Your task to perform on an android device: What's the weather going to be this weekend? Image 0: 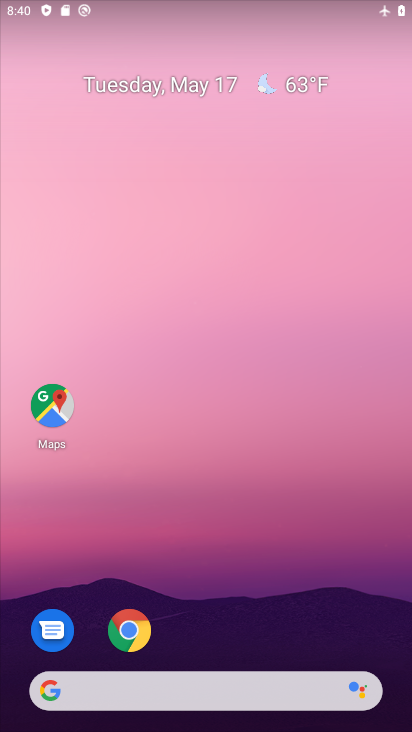
Step 0: click (319, 77)
Your task to perform on an android device: What's the weather going to be this weekend? Image 1: 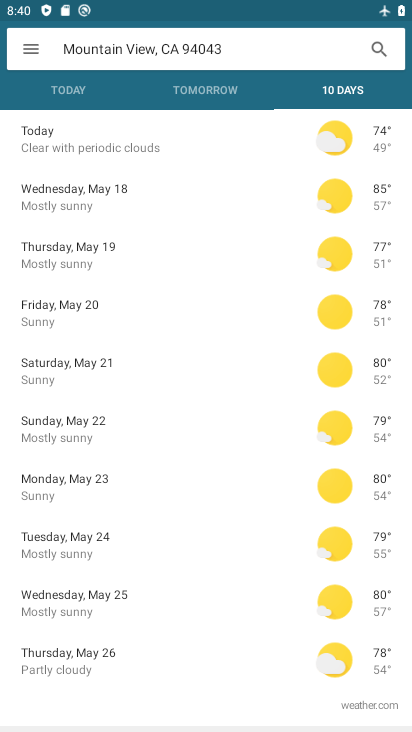
Step 1: task complete